Your task to perform on an android device: Open the web browser Image 0: 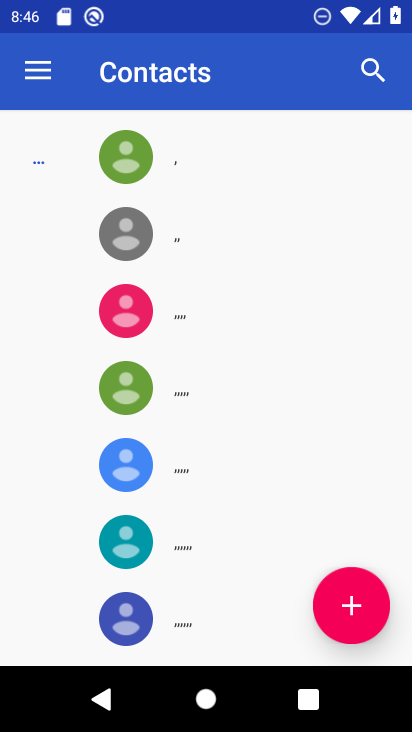
Step 0: press home button
Your task to perform on an android device: Open the web browser Image 1: 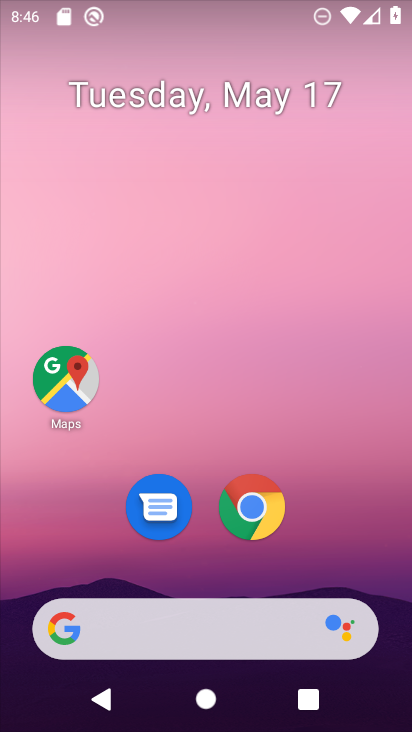
Step 1: click (333, 539)
Your task to perform on an android device: Open the web browser Image 2: 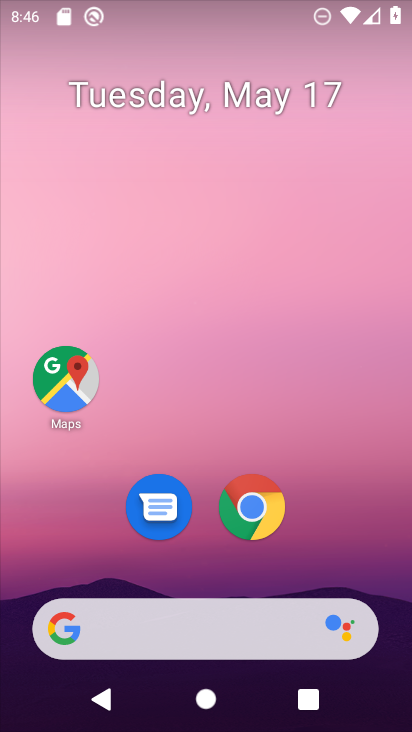
Step 2: click (258, 513)
Your task to perform on an android device: Open the web browser Image 3: 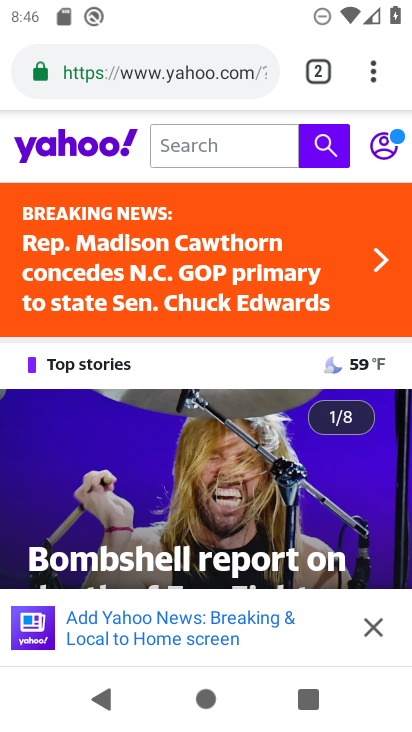
Step 3: task complete